Your task to perform on an android device: Open battery settings Image 0: 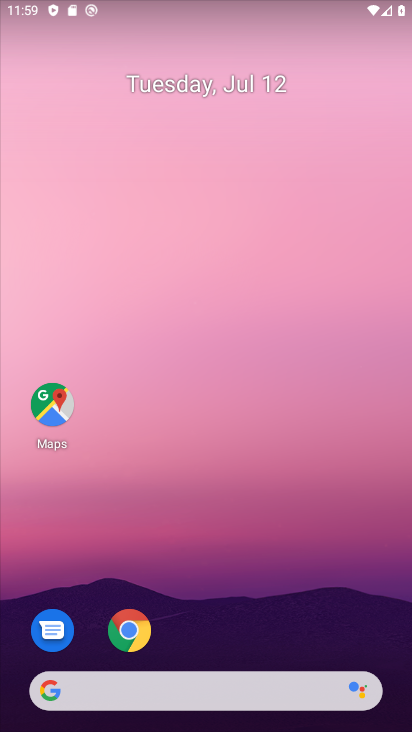
Step 0: press home button
Your task to perform on an android device: Open battery settings Image 1: 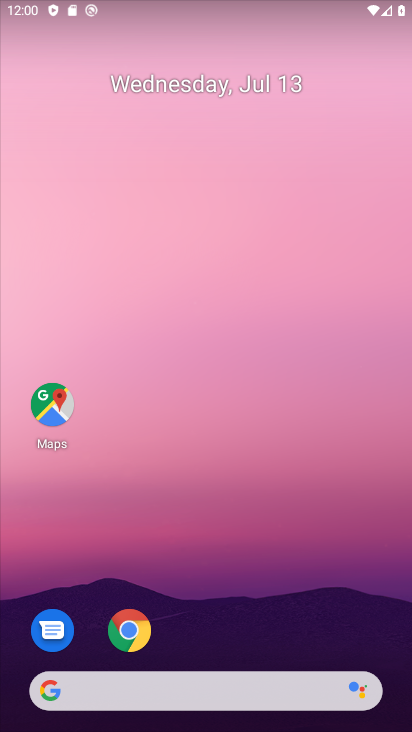
Step 1: drag from (210, 655) to (233, 28)
Your task to perform on an android device: Open battery settings Image 2: 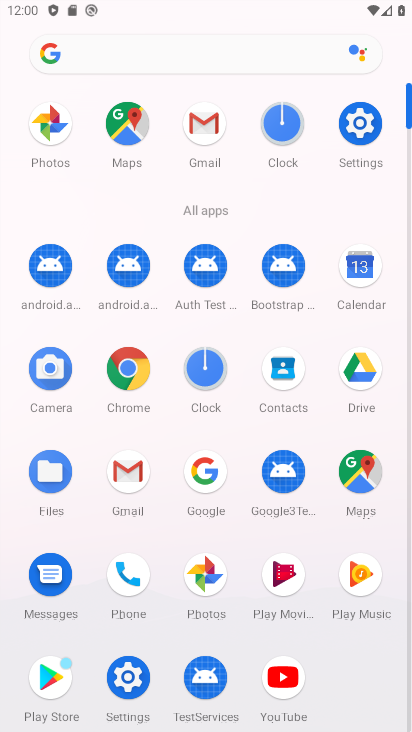
Step 2: click (359, 119)
Your task to perform on an android device: Open battery settings Image 3: 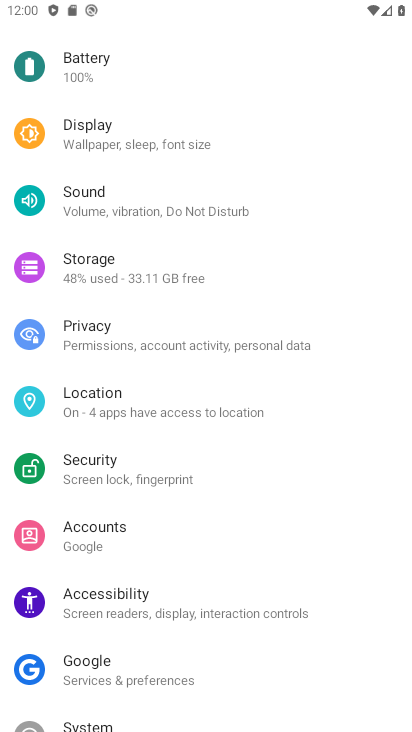
Step 3: click (124, 62)
Your task to perform on an android device: Open battery settings Image 4: 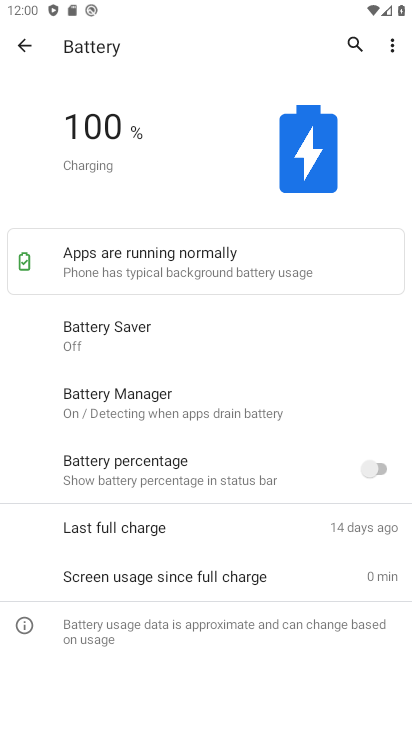
Step 4: task complete